Your task to perform on an android device: check out phone information Image 0: 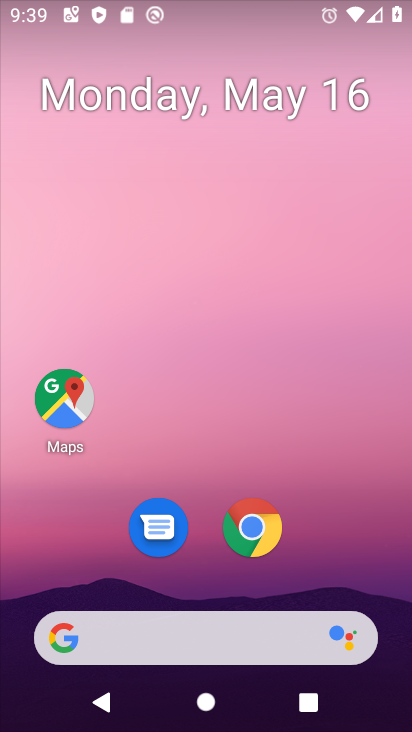
Step 0: drag from (341, 589) to (336, 9)
Your task to perform on an android device: check out phone information Image 1: 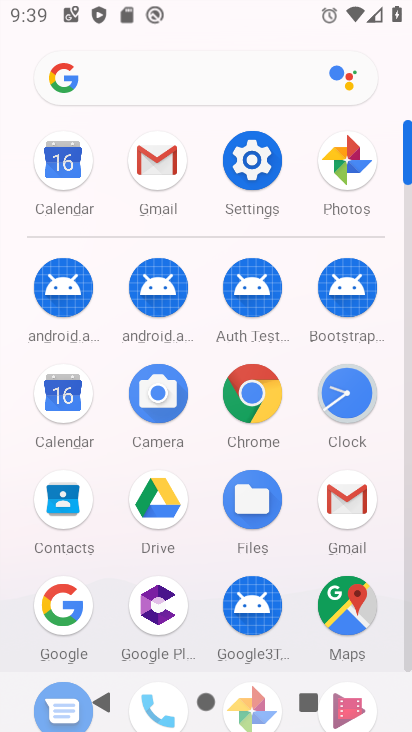
Step 1: click (257, 158)
Your task to perform on an android device: check out phone information Image 2: 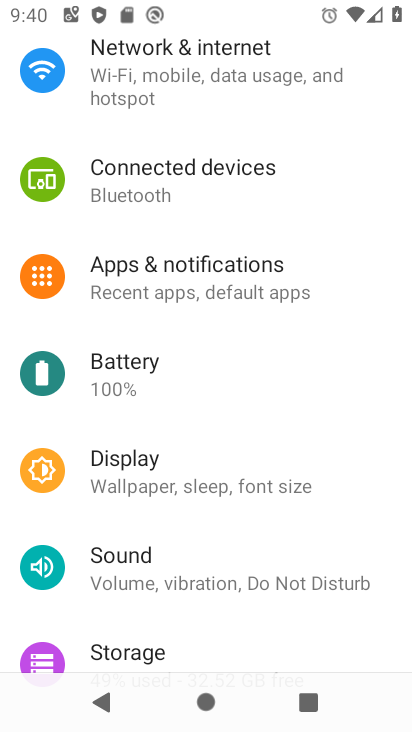
Step 2: drag from (244, 549) to (257, 64)
Your task to perform on an android device: check out phone information Image 3: 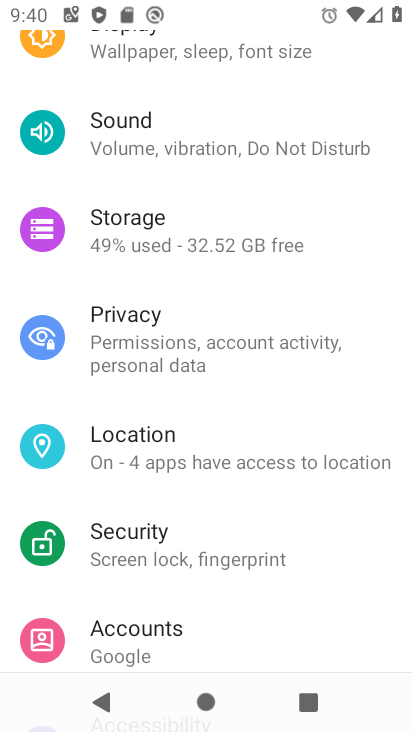
Step 3: drag from (215, 606) to (222, 134)
Your task to perform on an android device: check out phone information Image 4: 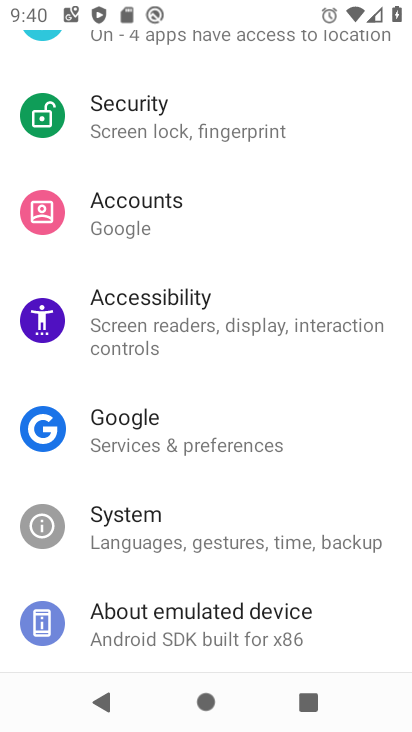
Step 4: click (175, 615)
Your task to perform on an android device: check out phone information Image 5: 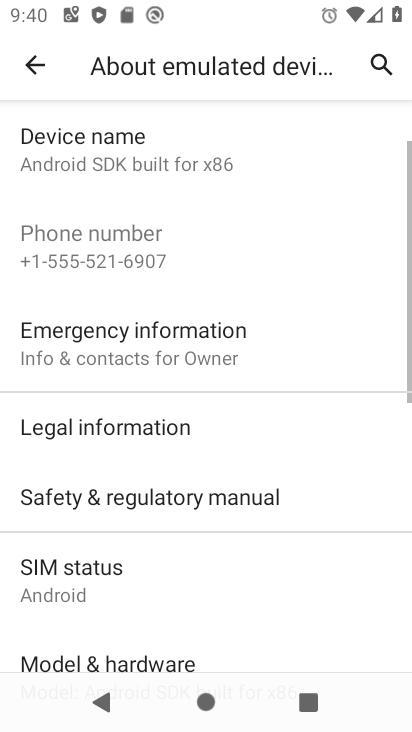
Step 5: task complete